Your task to perform on an android device: create a new album in the google photos Image 0: 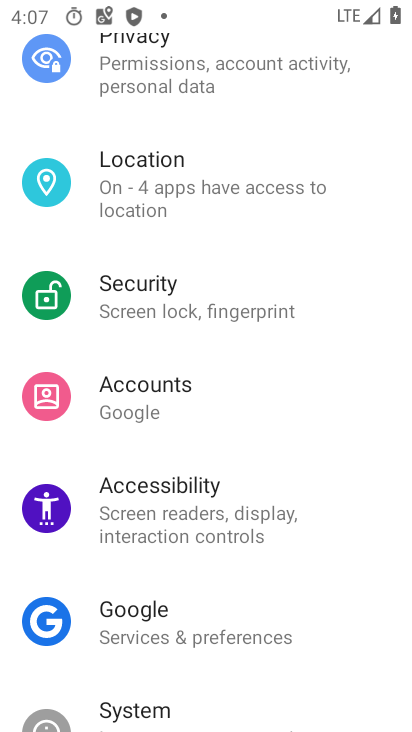
Step 0: press home button
Your task to perform on an android device: create a new album in the google photos Image 1: 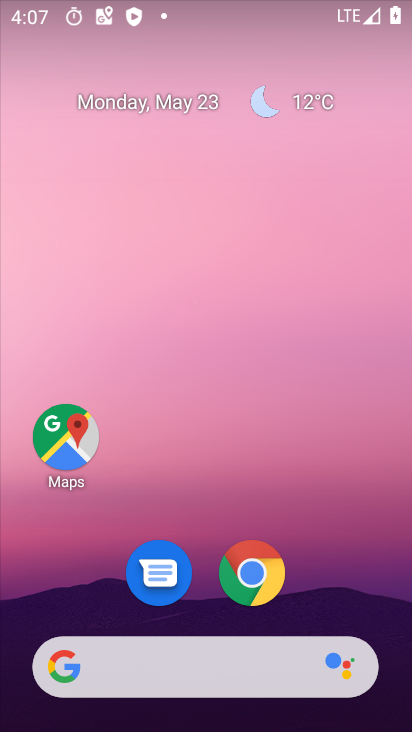
Step 1: drag from (53, 499) to (229, 227)
Your task to perform on an android device: create a new album in the google photos Image 2: 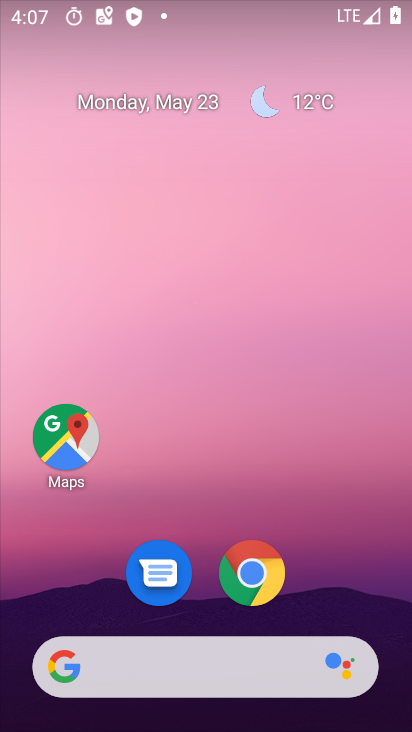
Step 2: drag from (9, 693) to (250, 174)
Your task to perform on an android device: create a new album in the google photos Image 3: 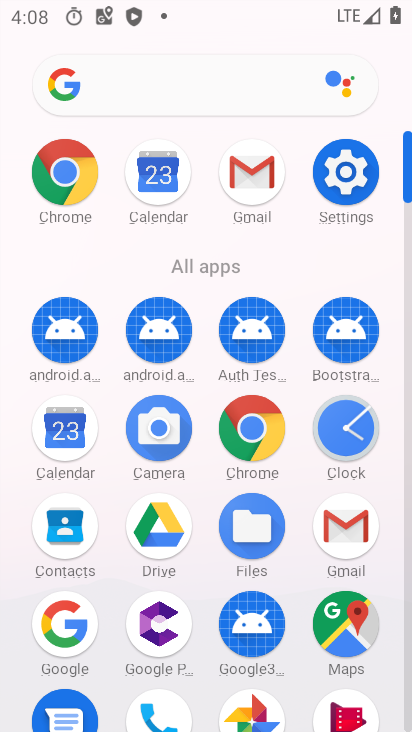
Step 3: click (257, 710)
Your task to perform on an android device: create a new album in the google photos Image 4: 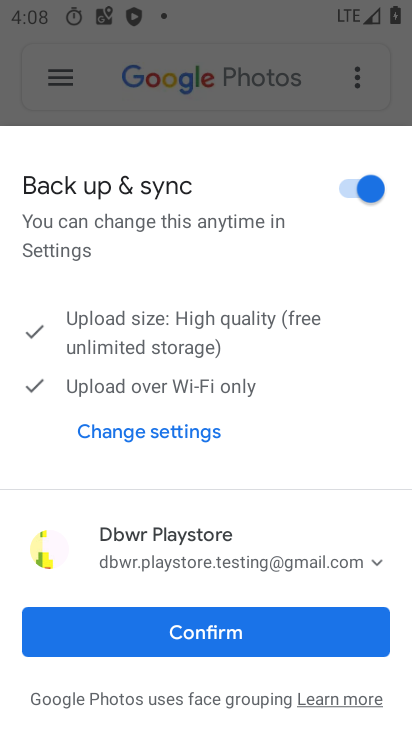
Step 4: click (221, 630)
Your task to perform on an android device: create a new album in the google photos Image 5: 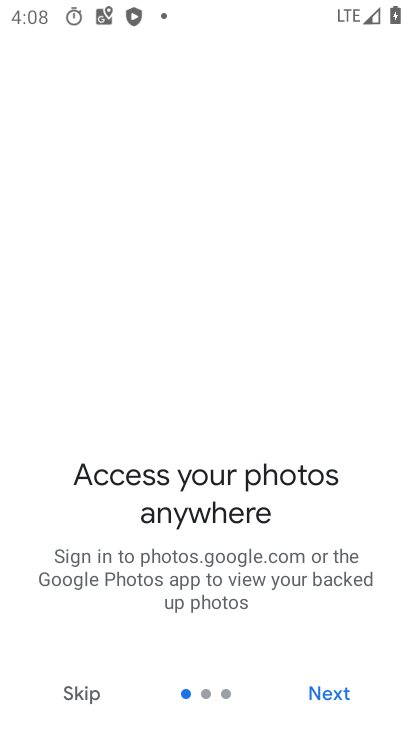
Step 5: click (351, 702)
Your task to perform on an android device: create a new album in the google photos Image 6: 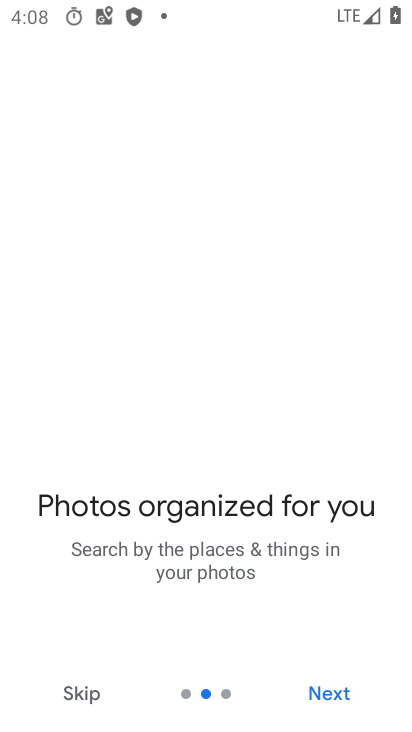
Step 6: click (351, 702)
Your task to perform on an android device: create a new album in the google photos Image 7: 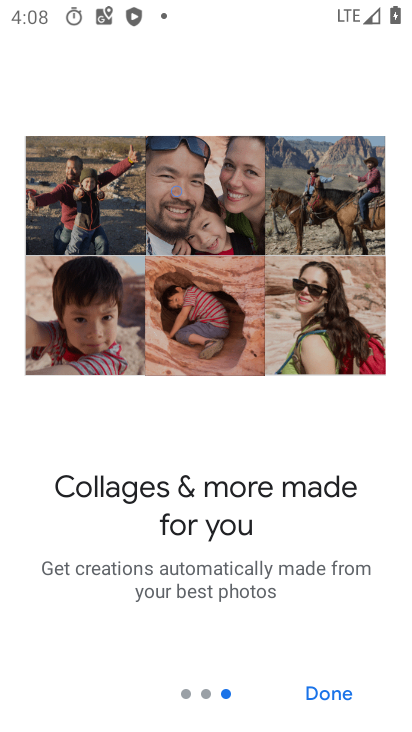
Step 7: click (351, 702)
Your task to perform on an android device: create a new album in the google photos Image 8: 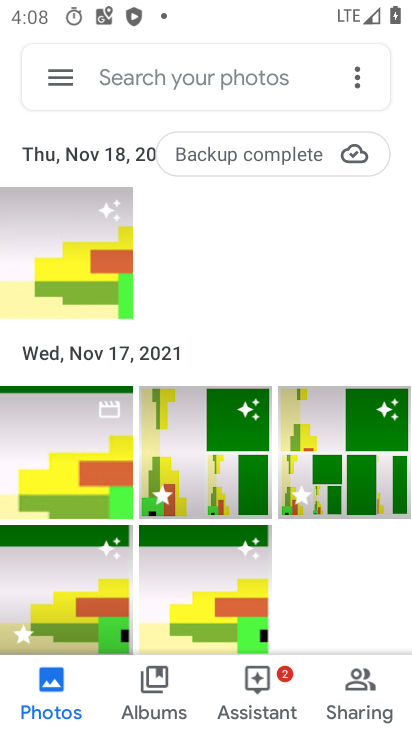
Step 8: click (356, 73)
Your task to perform on an android device: create a new album in the google photos Image 9: 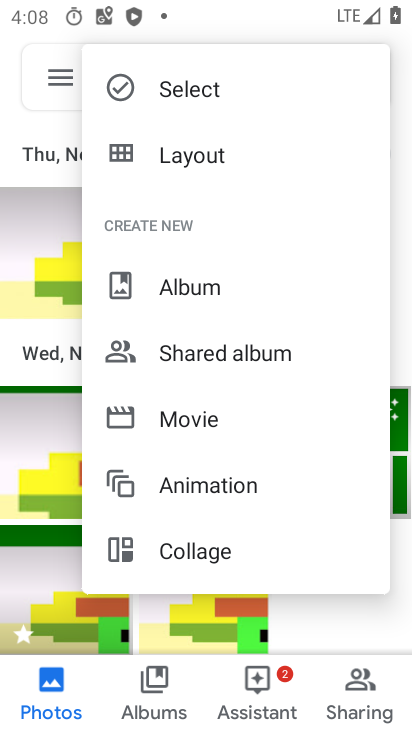
Step 9: click (195, 297)
Your task to perform on an android device: create a new album in the google photos Image 10: 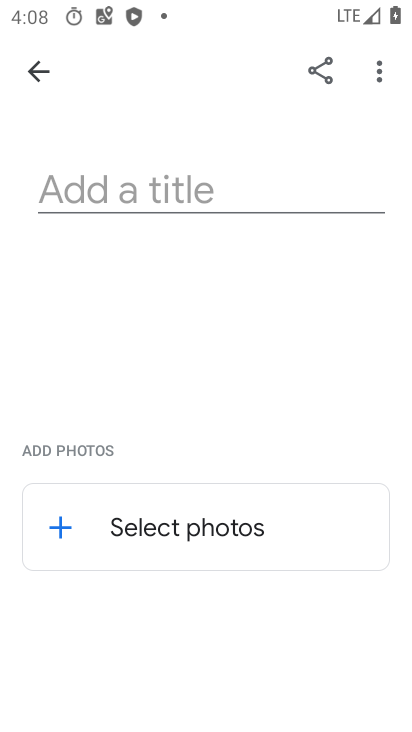
Step 10: click (260, 173)
Your task to perform on an android device: create a new album in the google photos Image 11: 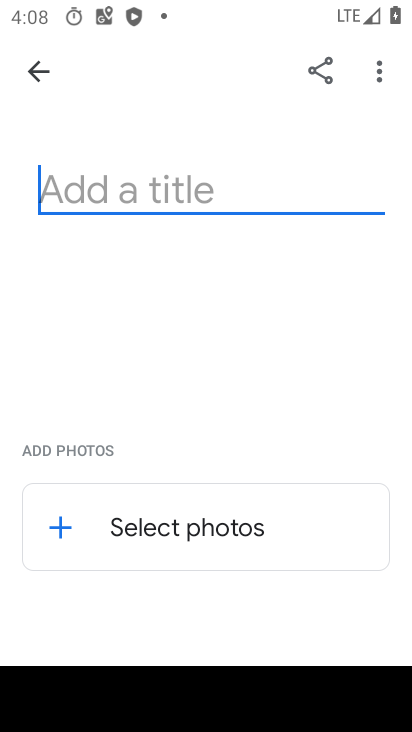
Step 11: type "hjfjhy,fyj"
Your task to perform on an android device: create a new album in the google photos Image 12: 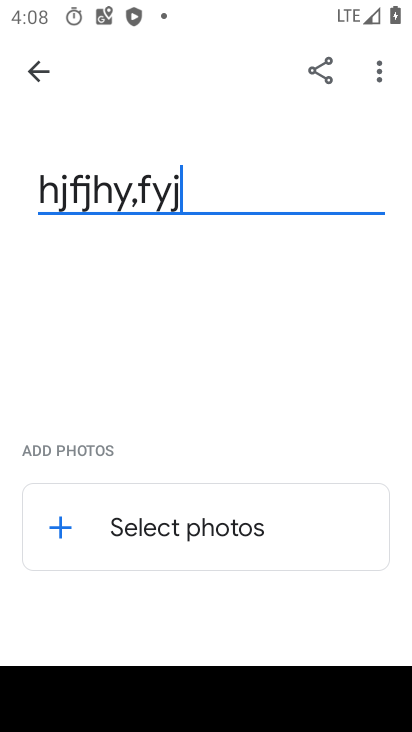
Step 12: type ""
Your task to perform on an android device: create a new album in the google photos Image 13: 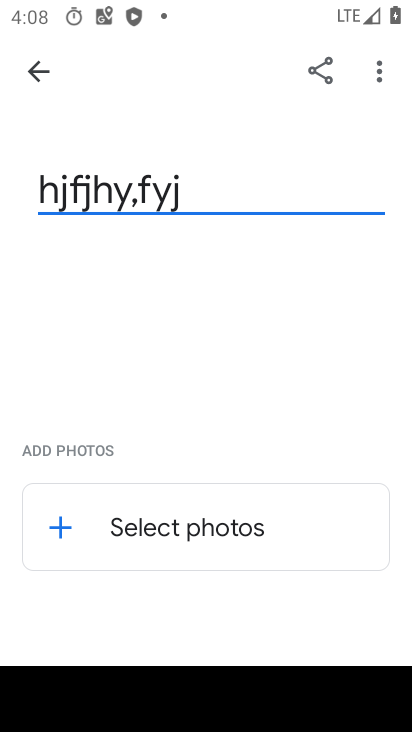
Step 13: click (123, 531)
Your task to perform on an android device: create a new album in the google photos Image 14: 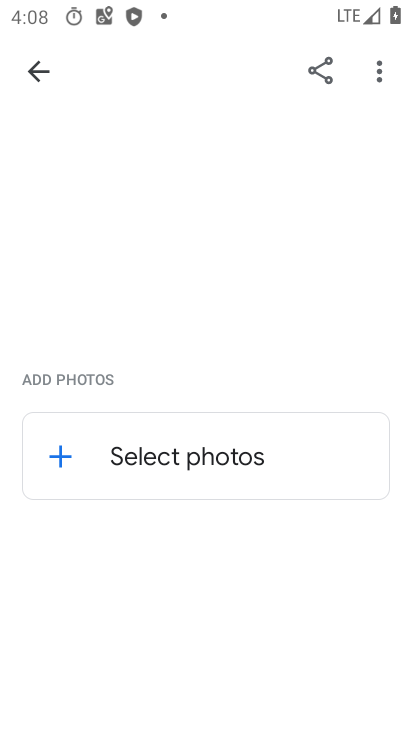
Step 14: click (172, 466)
Your task to perform on an android device: create a new album in the google photos Image 15: 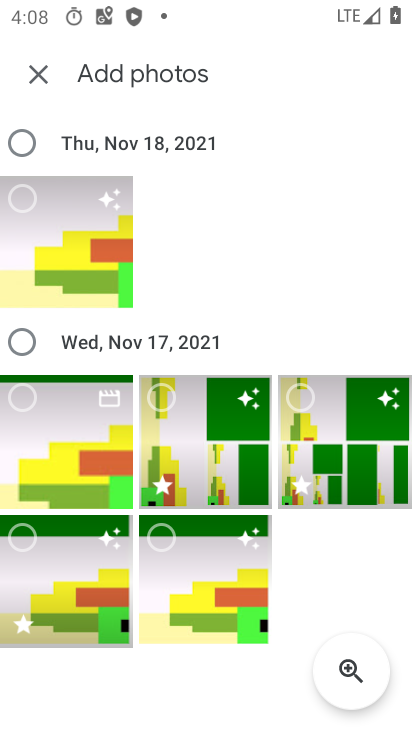
Step 15: click (68, 468)
Your task to perform on an android device: create a new album in the google photos Image 16: 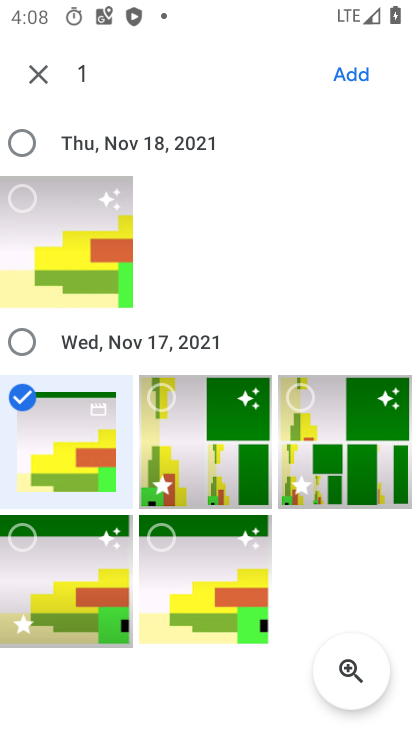
Step 16: click (360, 78)
Your task to perform on an android device: create a new album in the google photos Image 17: 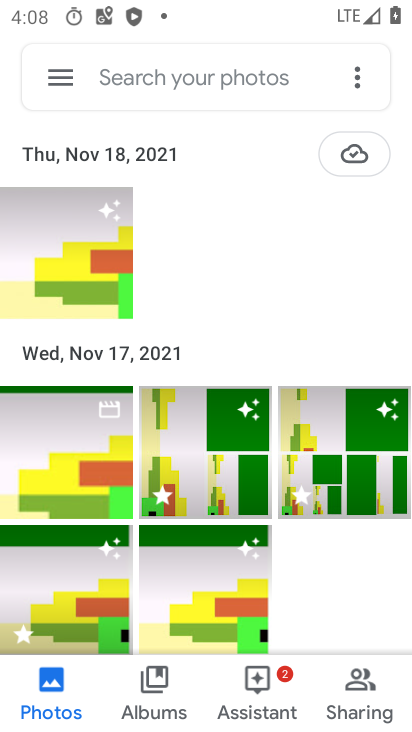
Step 17: task complete